Your task to perform on an android device: Go to Amazon Image 0: 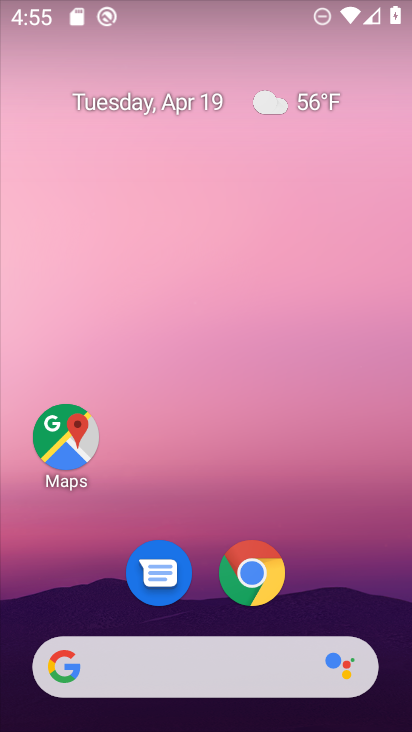
Step 0: click (257, 575)
Your task to perform on an android device: Go to Amazon Image 1: 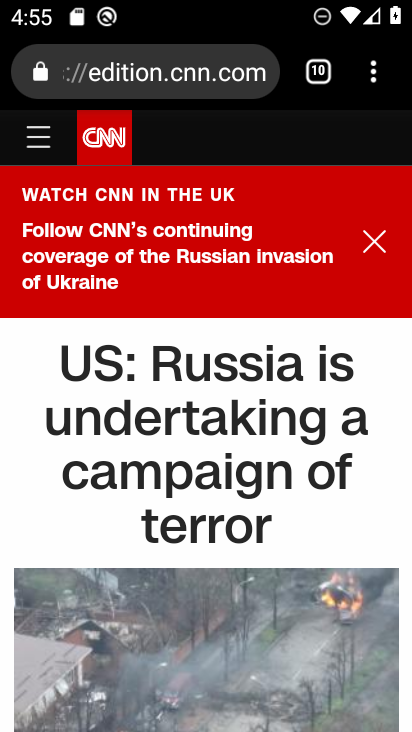
Step 1: click (374, 75)
Your task to perform on an android device: Go to Amazon Image 2: 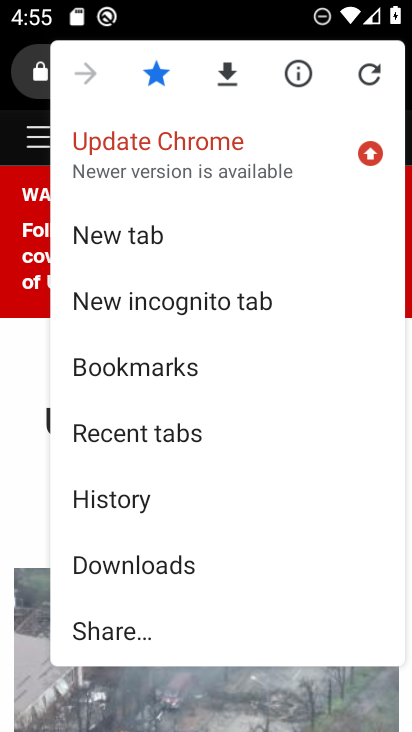
Step 2: click (154, 237)
Your task to perform on an android device: Go to Amazon Image 3: 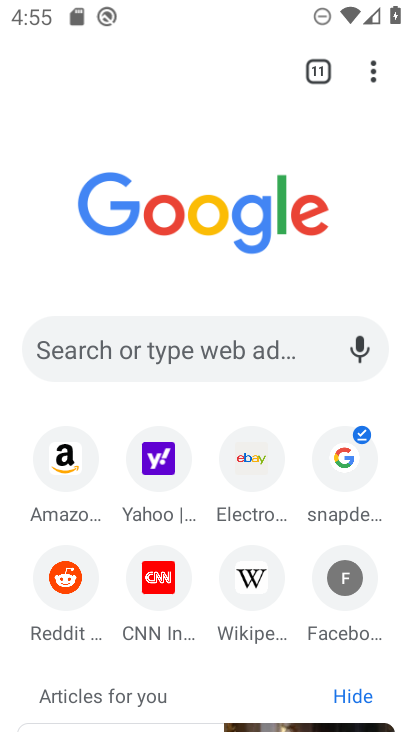
Step 3: click (64, 466)
Your task to perform on an android device: Go to Amazon Image 4: 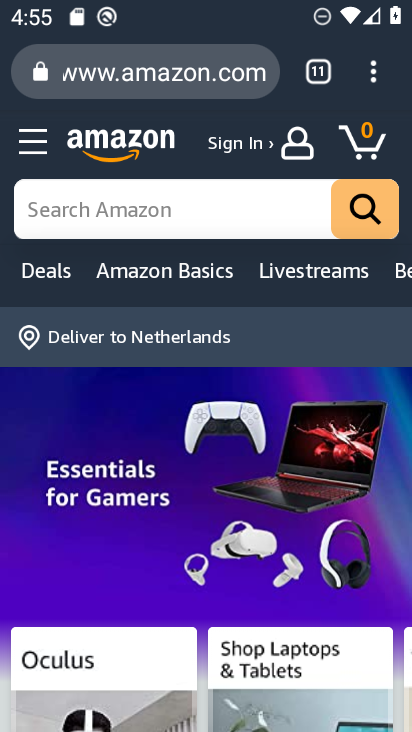
Step 4: task complete